Your task to perform on an android device: toggle show notifications on the lock screen Image 0: 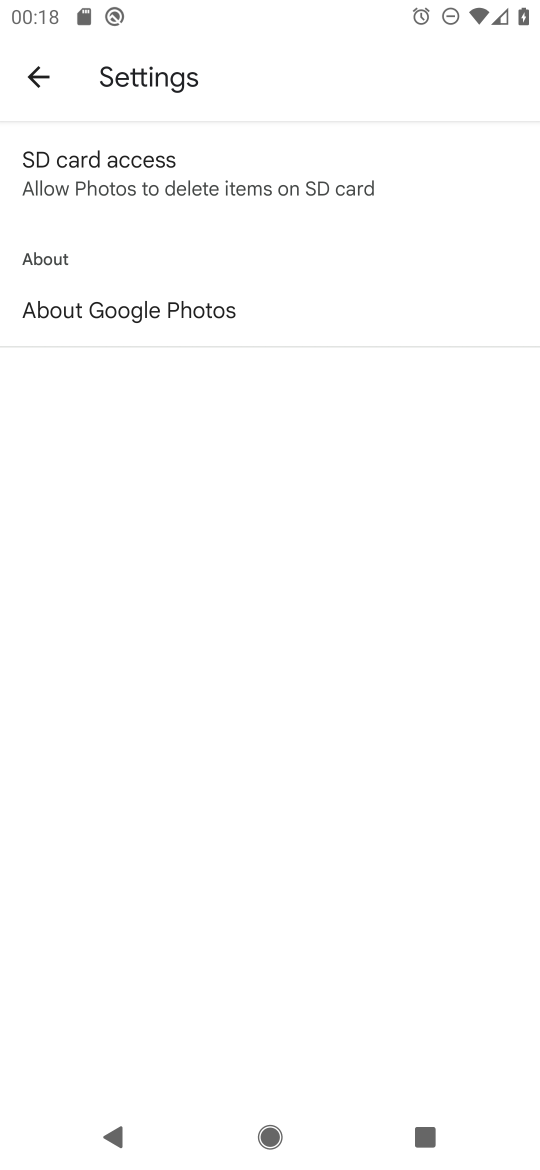
Step 0: press home button
Your task to perform on an android device: toggle show notifications on the lock screen Image 1: 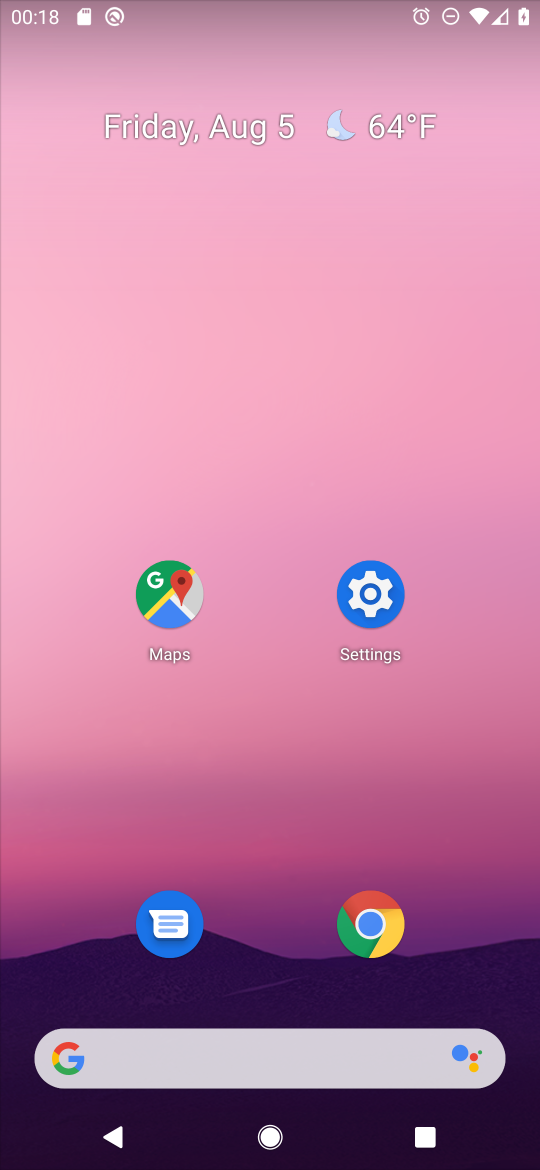
Step 1: drag from (365, 1051) to (534, 158)
Your task to perform on an android device: toggle show notifications on the lock screen Image 2: 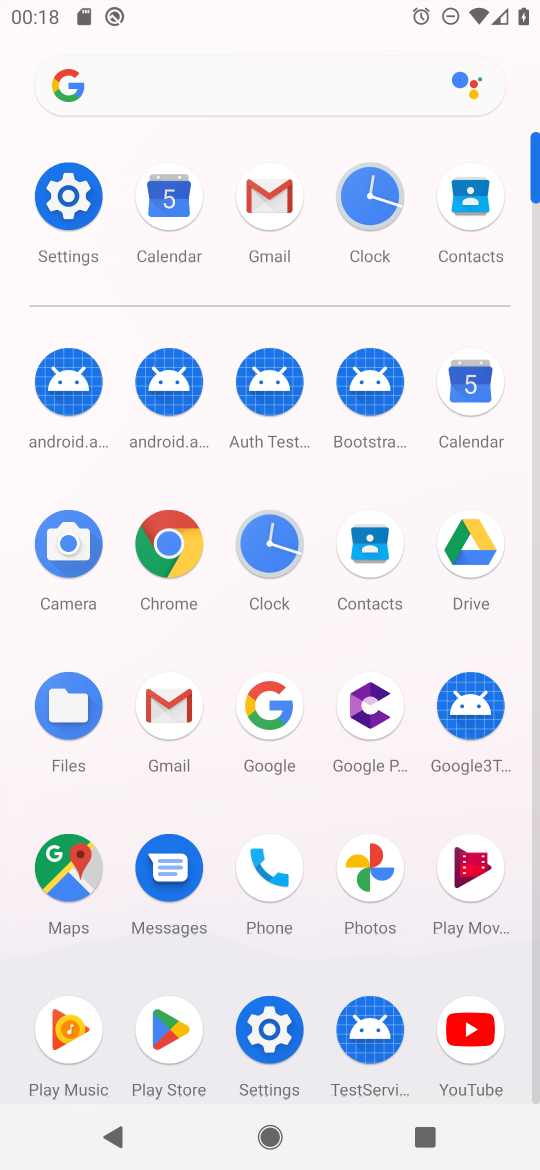
Step 2: drag from (342, 325) to (430, 5)
Your task to perform on an android device: toggle show notifications on the lock screen Image 3: 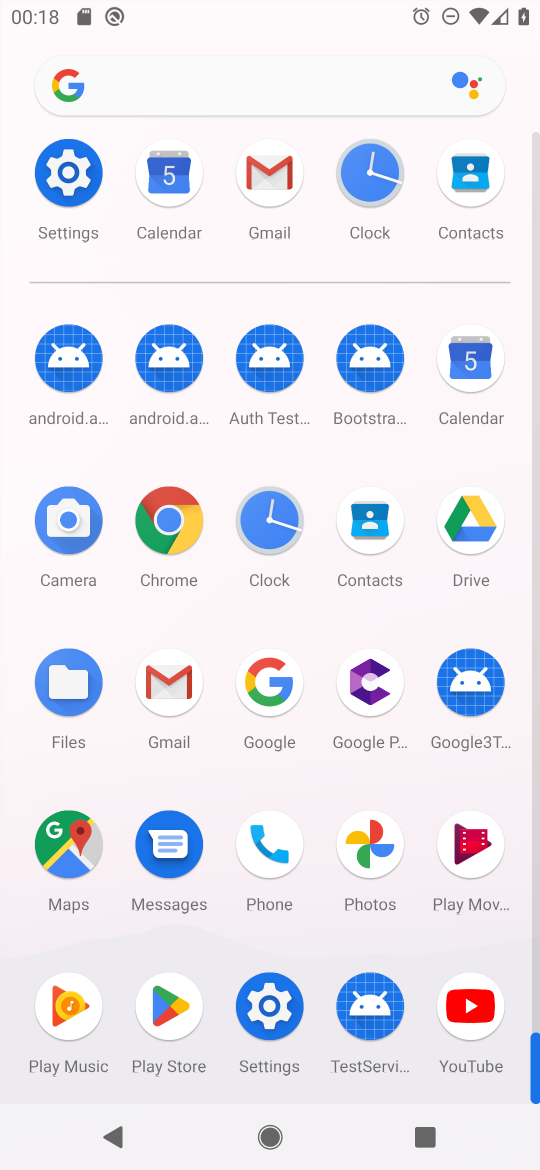
Step 3: click (60, 168)
Your task to perform on an android device: toggle show notifications on the lock screen Image 4: 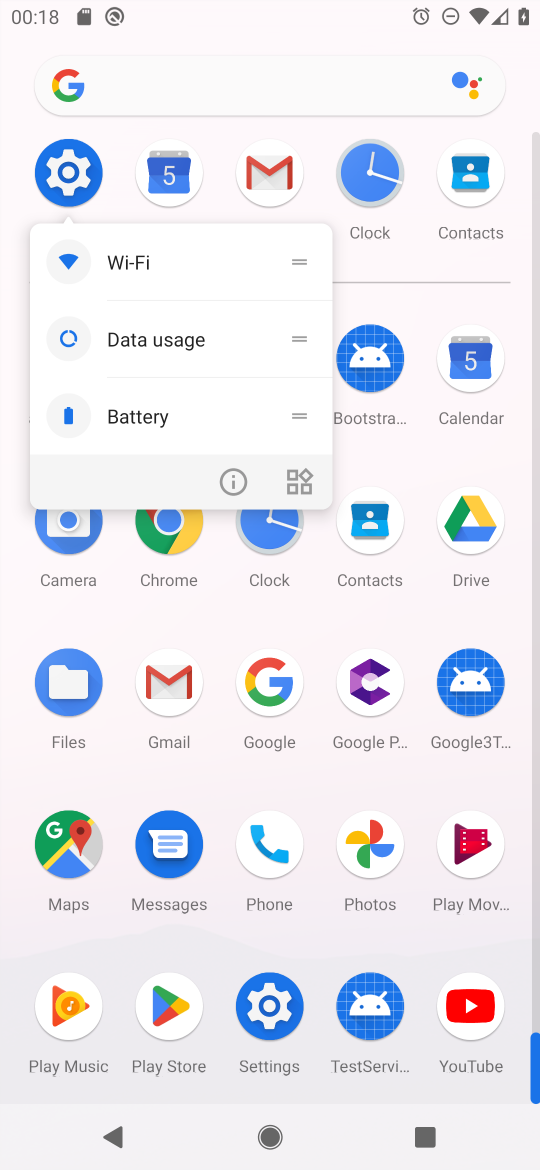
Step 4: click (82, 184)
Your task to perform on an android device: toggle show notifications on the lock screen Image 5: 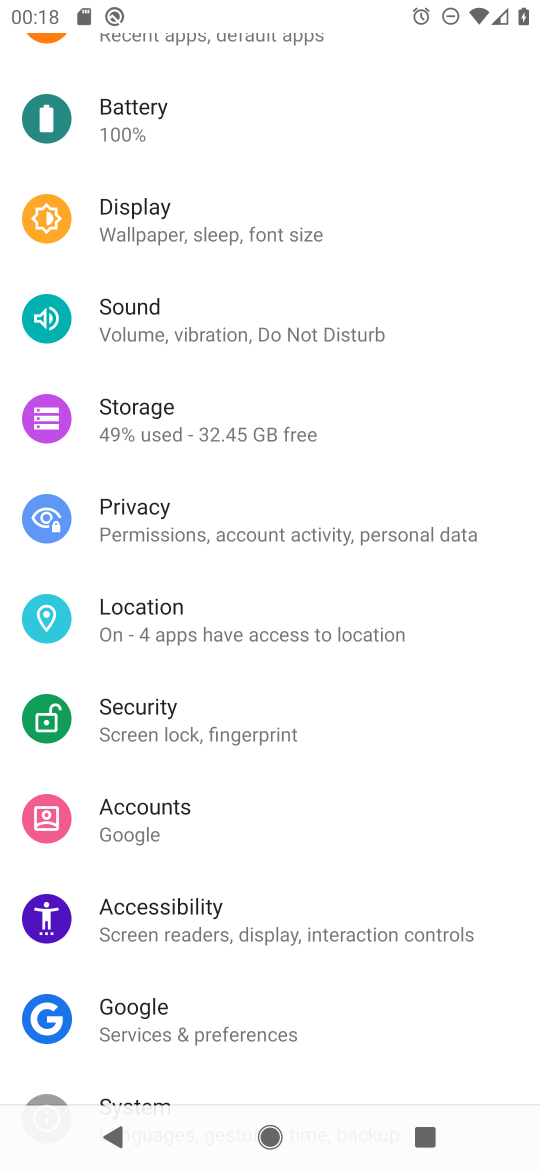
Step 5: drag from (383, 251) to (291, 853)
Your task to perform on an android device: toggle show notifications on the lock screen Image 6: 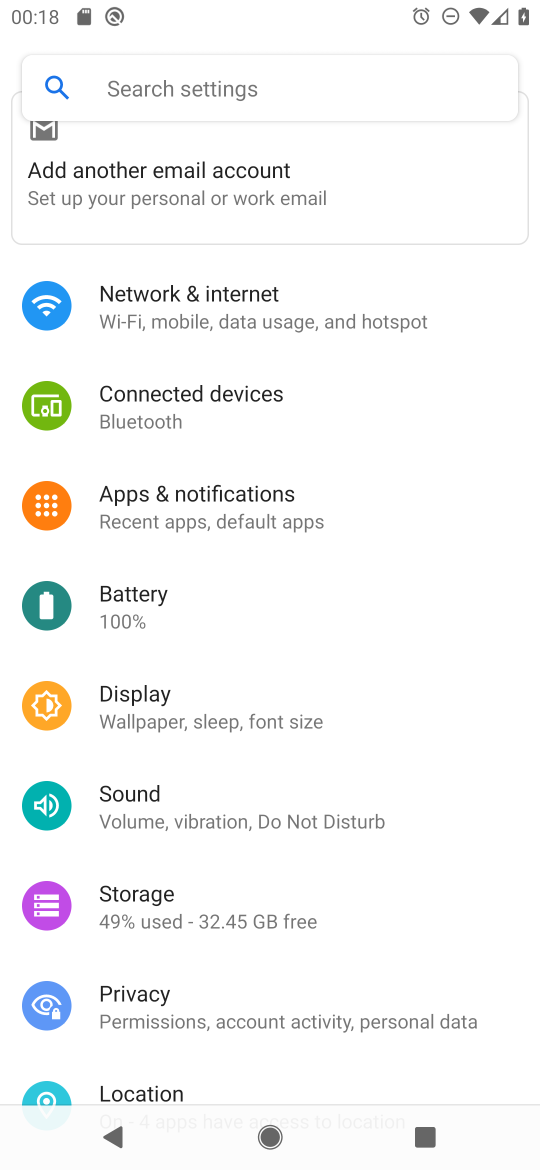
Step 6: click (220, 498)
Your task to perform on an android device: toggle show notifications on the lock screen Image 7: 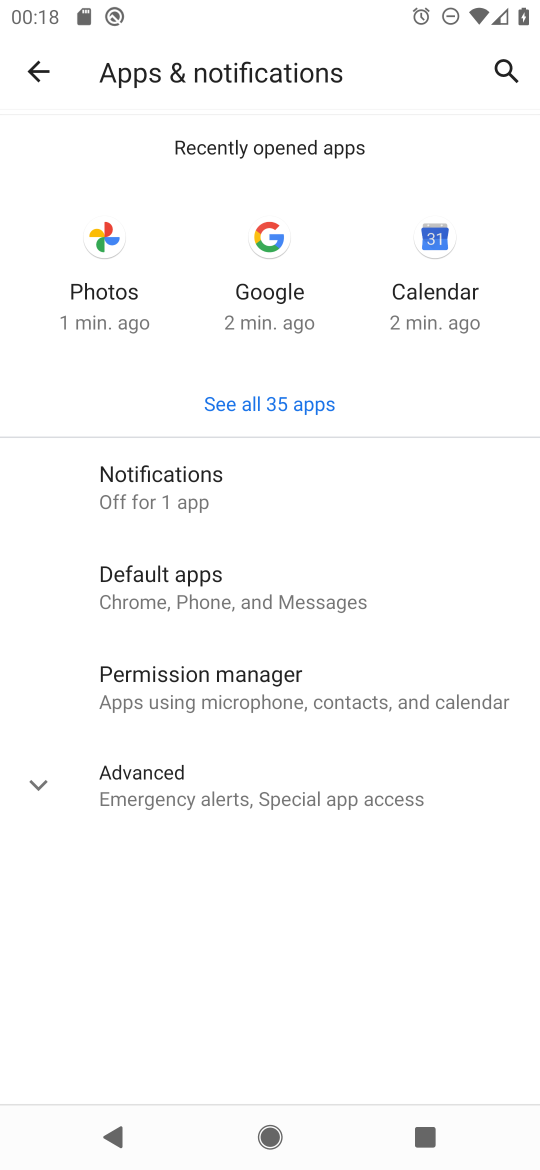
Step 7: click (200, 479)
Your task to perform on an android device: toggle show notifications on the lock screen Image 8: 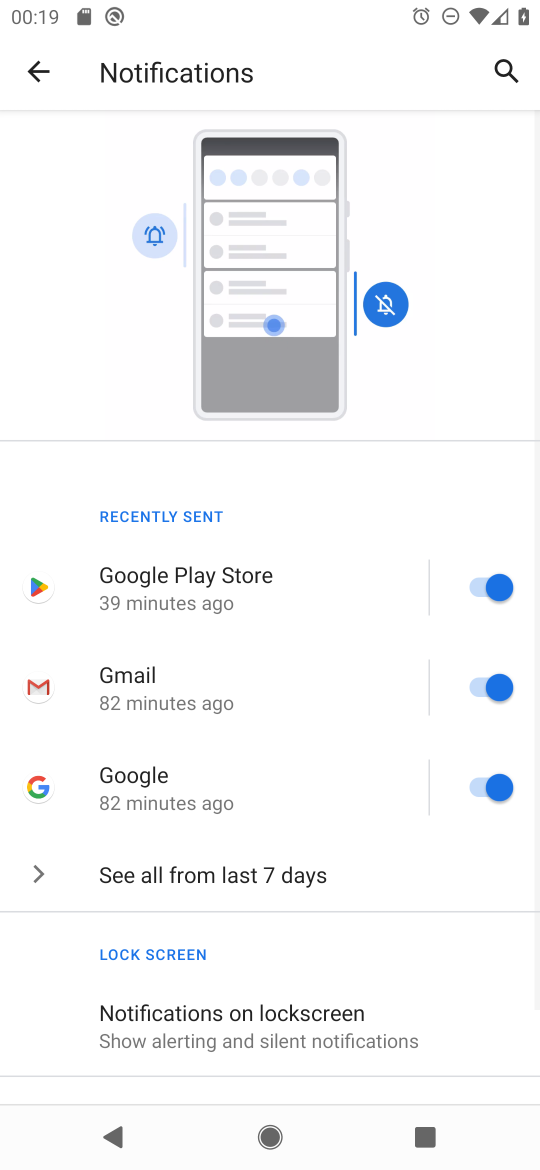
Step 8: drag from (256, 981) to (429, 346)
Your task to perform on an android device: toggle show notifications on the lock screen Image 9: 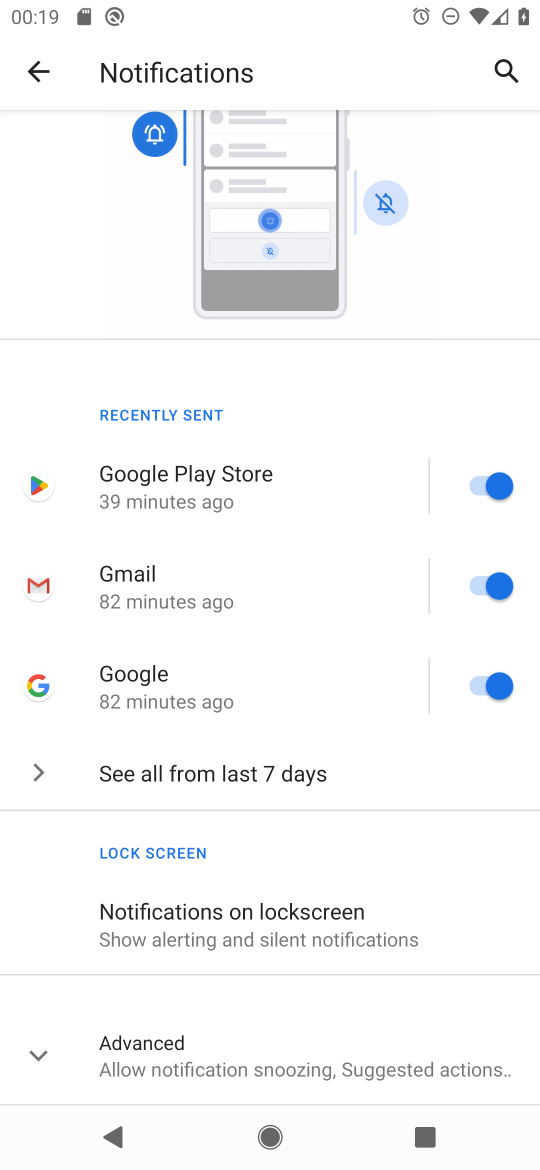
Step 9: click (273, 920)
Your task to perform on an android device: toggle show notifications on the lock screen Image 10: 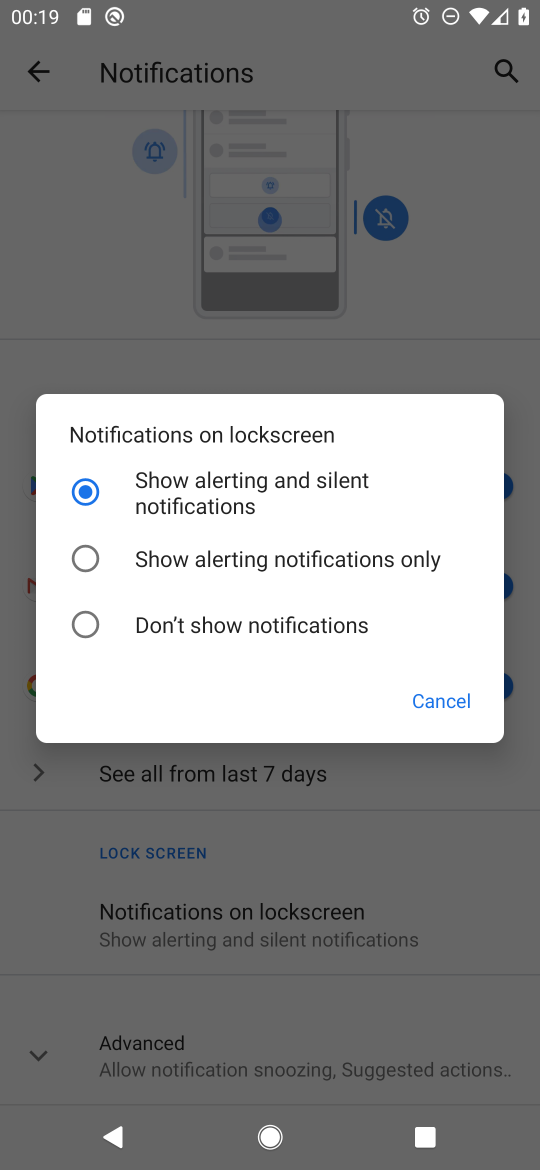
Step 10: click (93, 619)
Your task to perform on an android device: toggle show notifications on the lock screen Image 11: 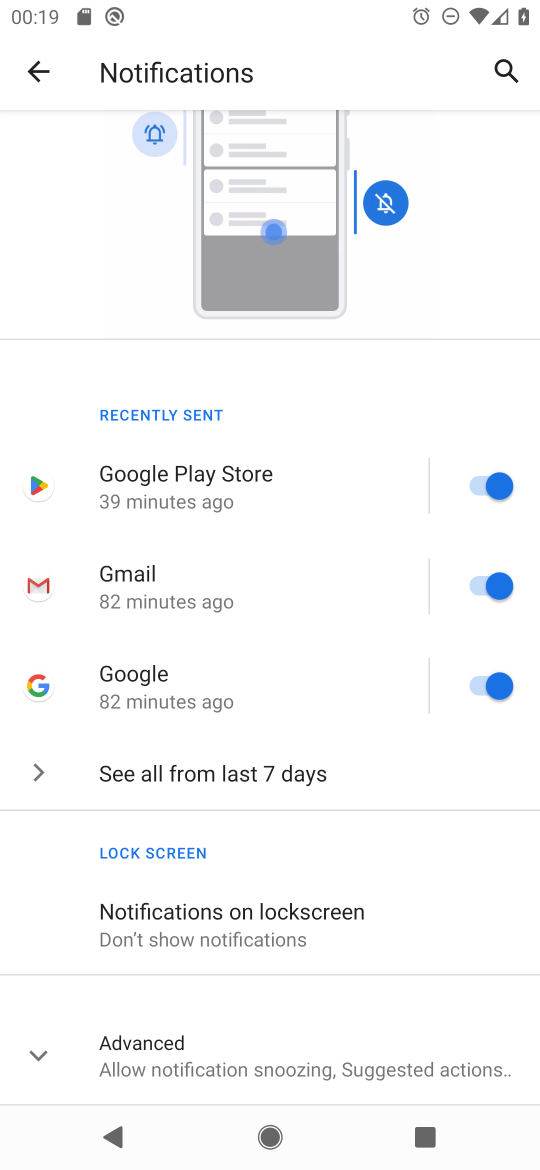
Step 11: task complete